Your task to perform on an android device: Search for vegetarian restaurants on Maps Image 0: 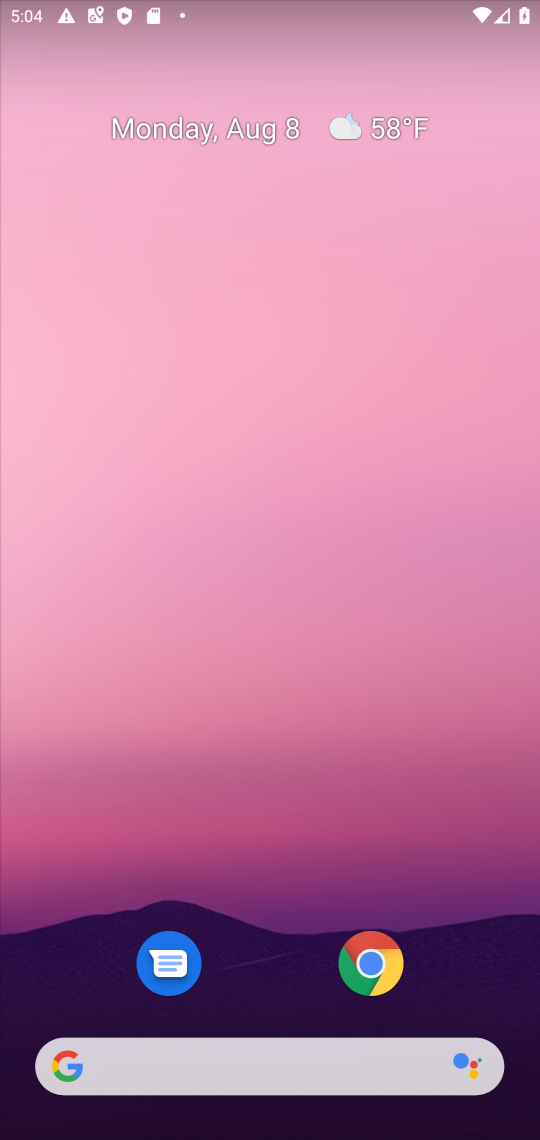
Step 0: drag from (288, 744) to (283, 6)
Your task to perform on an android device: Search for vegetarian restaurants on Maps Image 1: 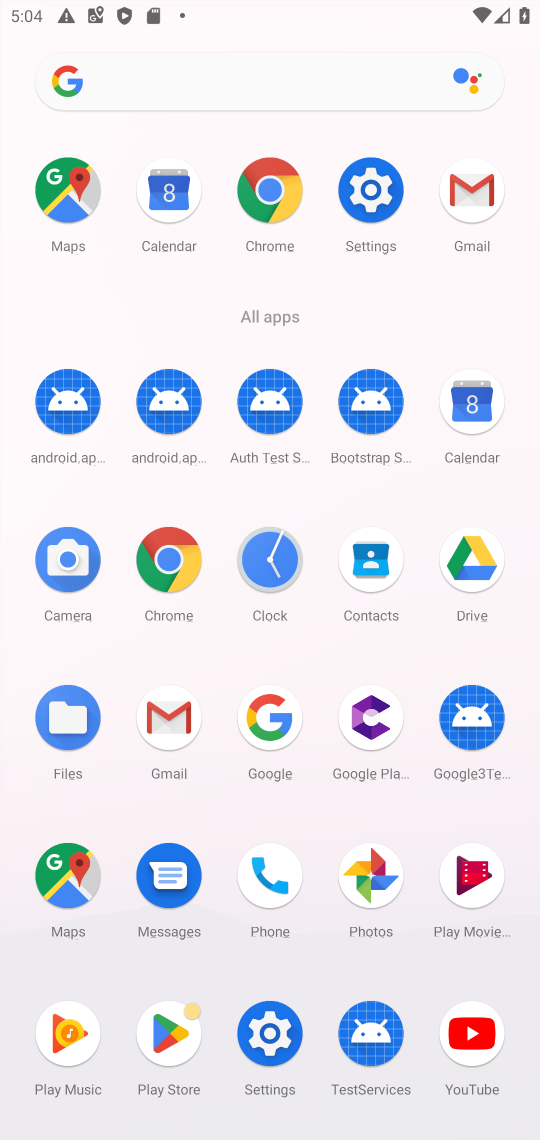
Step 1: click (56, 875)
Your task to perform on an android device: Search for vegetarian restaurants on Maps Image 2: 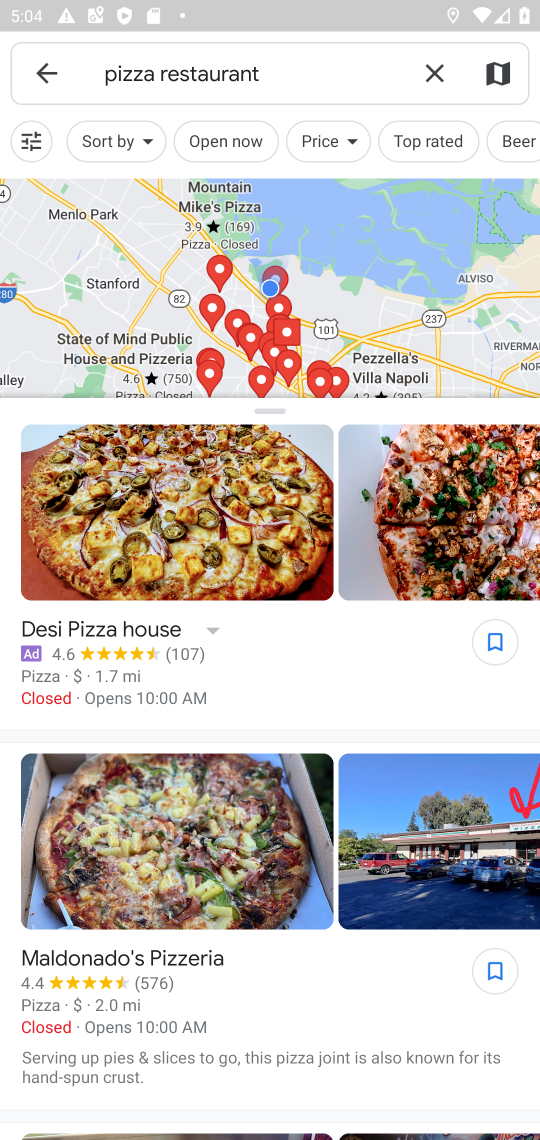
Step 2: click (425, 76)
Your task to perform on an android device: Search for vegetarian restaurants on Maps Image 3: 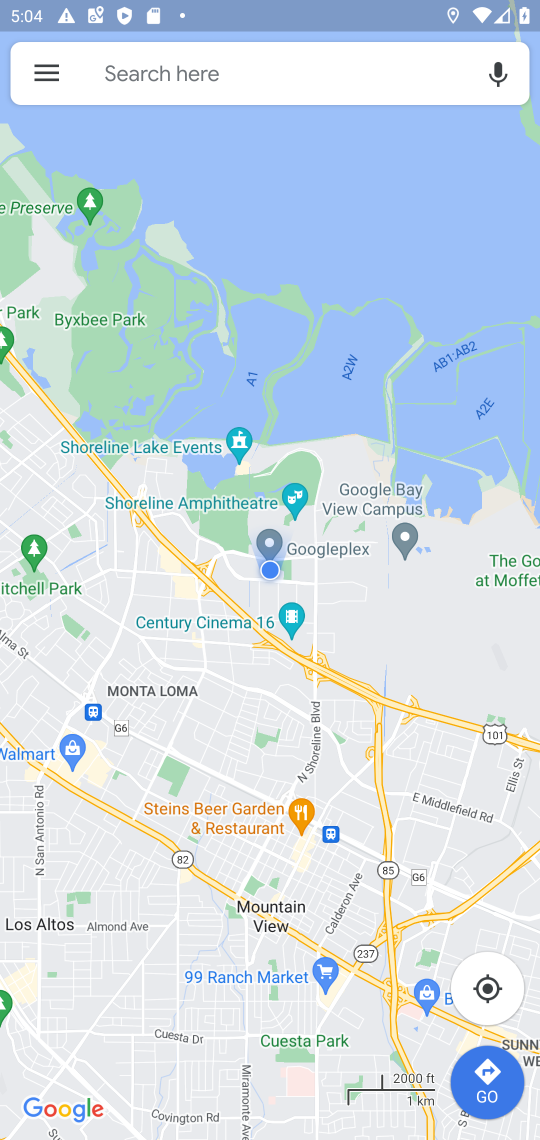
Step 3: click (179, 57)
Your task to perform on an android device: Search for vegetarian restaurants on Maps Image 4: 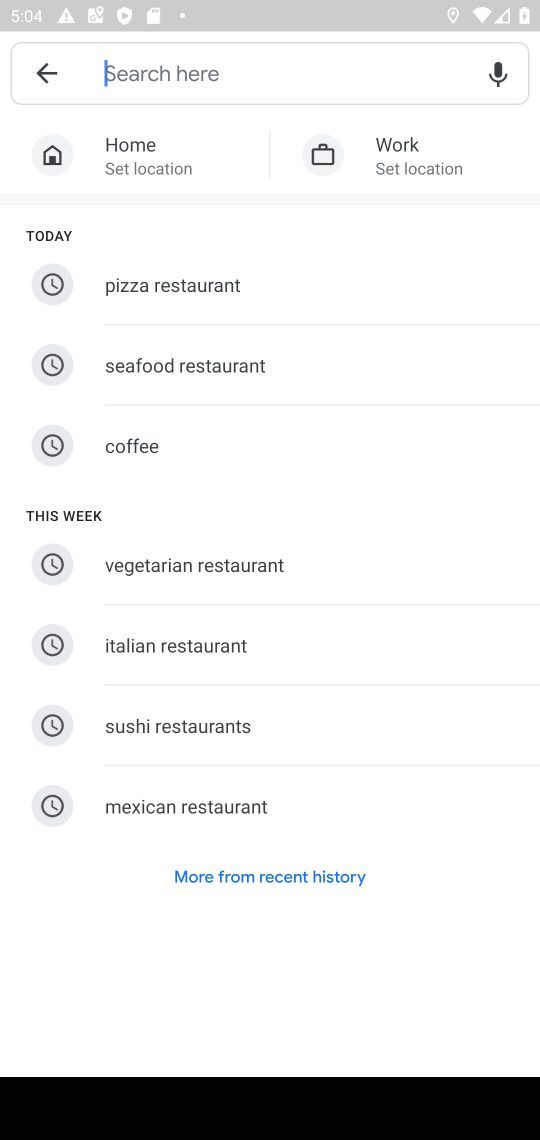
Step 4: type "vegetarian restaurants"
Your task to perform on an android device: Search for vegetarian restaurants on Maps Image 5: 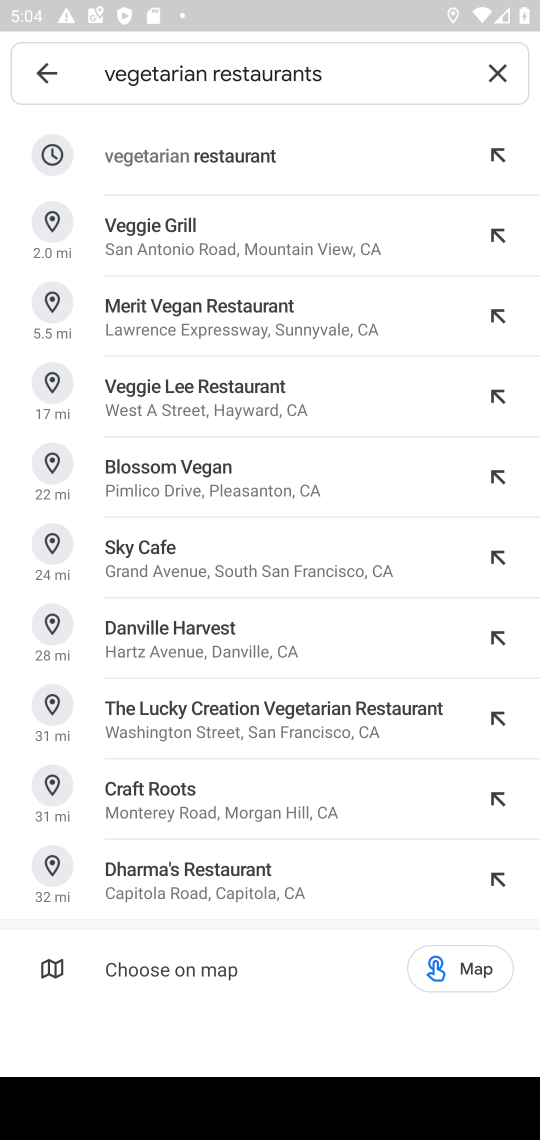
Step 5: click (212, 141)
Your task to perform on an android device: Search for vegetarian restaurants on Maps Image 6: 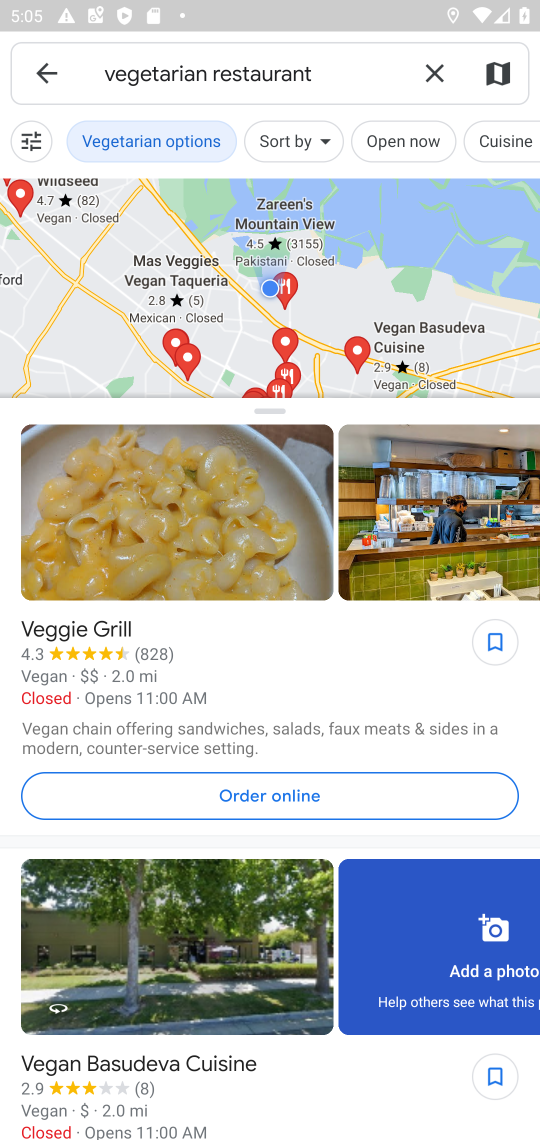
Step 6: task complete